Your task to perform on an android device: find photos in the google photos app Image 0: 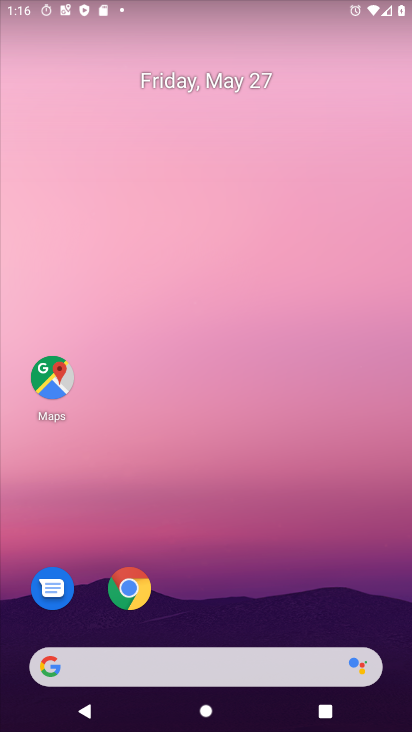
Step 0: drag from (215, 624) to (217, 8)
Your task to perform on an android device: find photos in the google photos app Image 1: 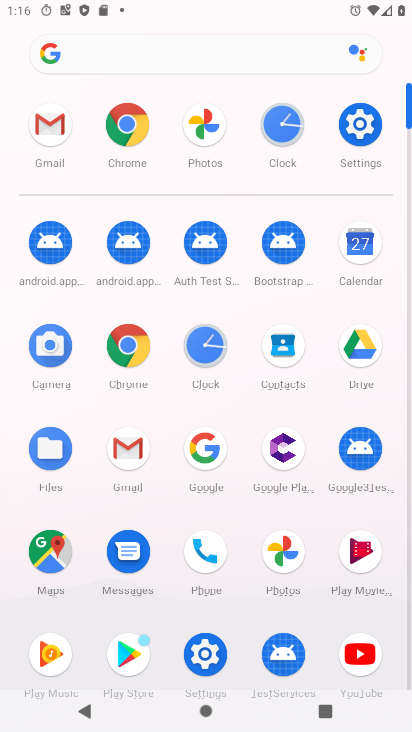
Step 1: click (204, 119)
Your task to perform on an android device: find photos in the google photos app Image 2: 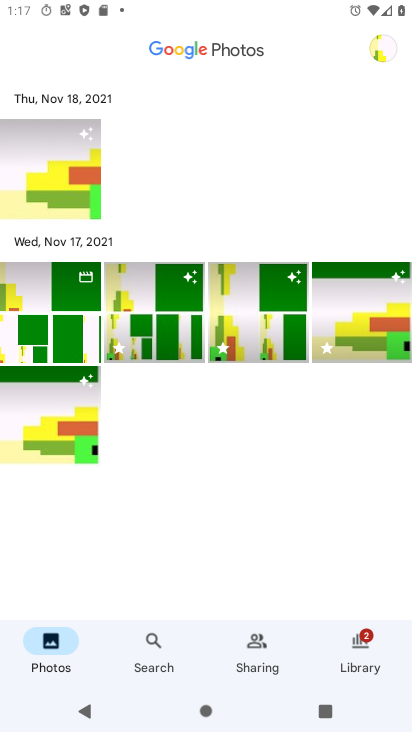
Step 2: task complete